Your task to perform on an android device: Open wifi settings Image 0: 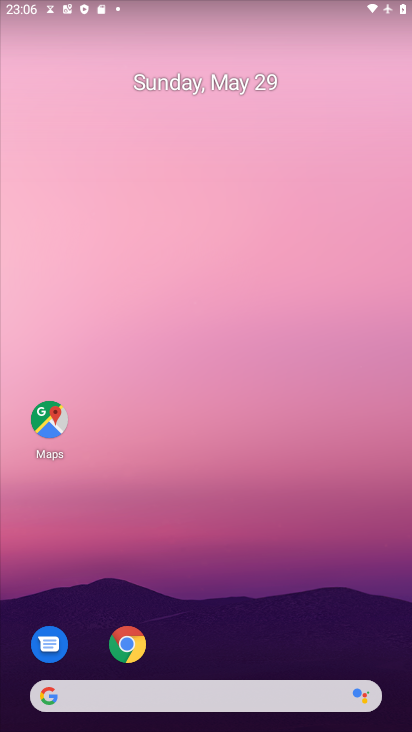
Step 0: drag from (213, 603) to (219, 360)
Your task to perform on an android device: Open wifi settings Image 1: 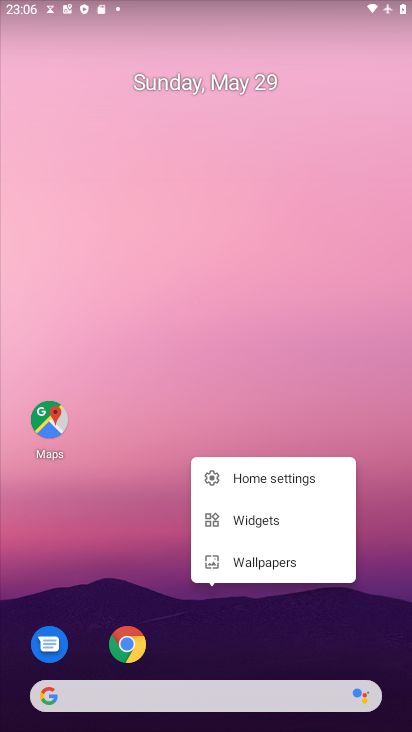
Step 1: click (153, 586)
Your task to perform on an android device: Open wifi settings Image 2: 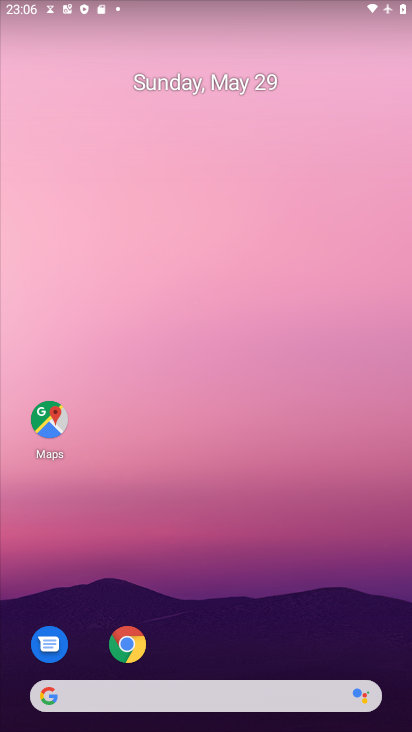
Step 2: click (191, 347)
Your task to perform on an android device: Open wifi settings Image 3: 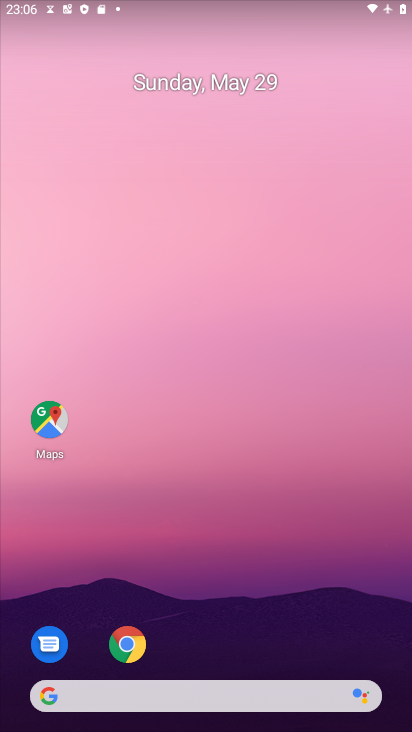
Step 3: drag from (223, 579) to (229, 94)
Your task to perform on an android device: Open wifi settings Image 4: 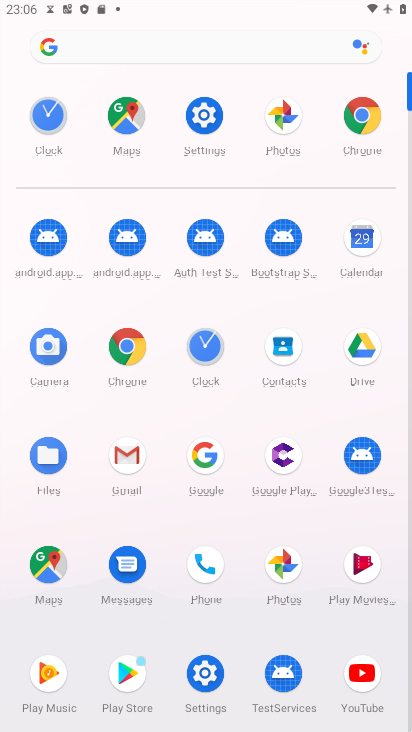
Step 4: click (209, 114)
Your task to perform on an android device: Open wifi settings Image 5: 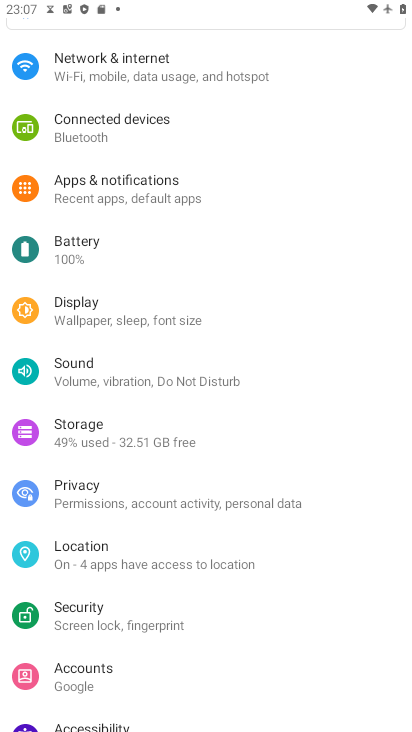
Step 5: click (189, 69)
Your task to perform on an android device: Open wifi settings Image 6: 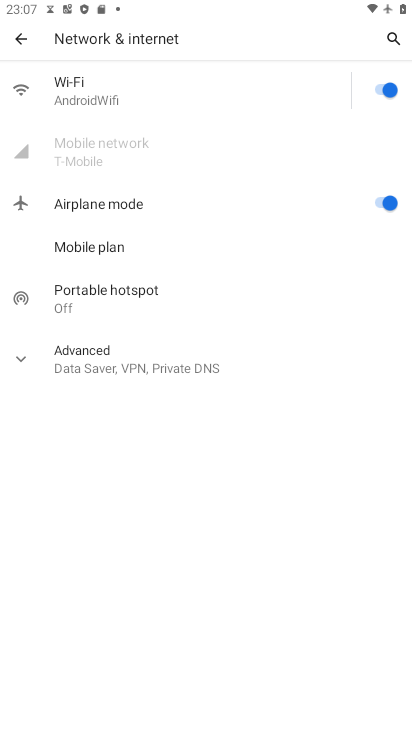
Step 6: task complete